Your task to perform on an android device: change the clock display to analog Image 0: 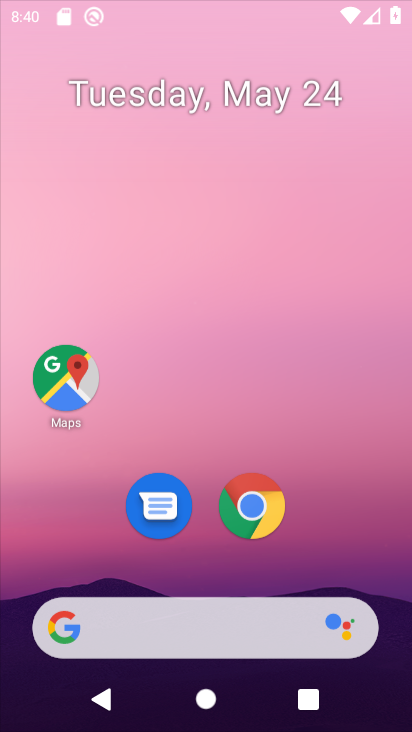
Step 0: drag from (308, 115) to (266, 32)
Your task to perform on an android device: change the clock display to analog Image 1: 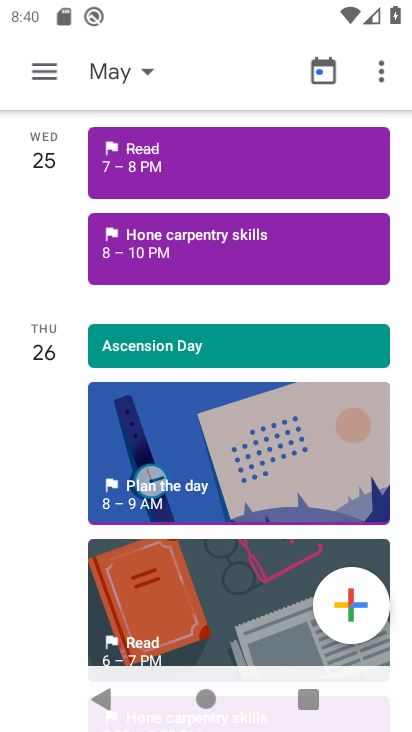
Step 1: click (115, 66)
Your task to perform on an android device: change the clock display to analog Image 2: 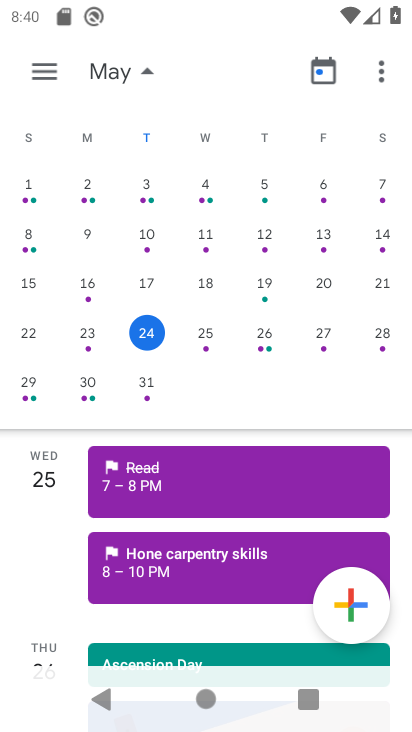
Step 2: press home button
Your task to perform on an android device: change the clock display to analog Image 3: 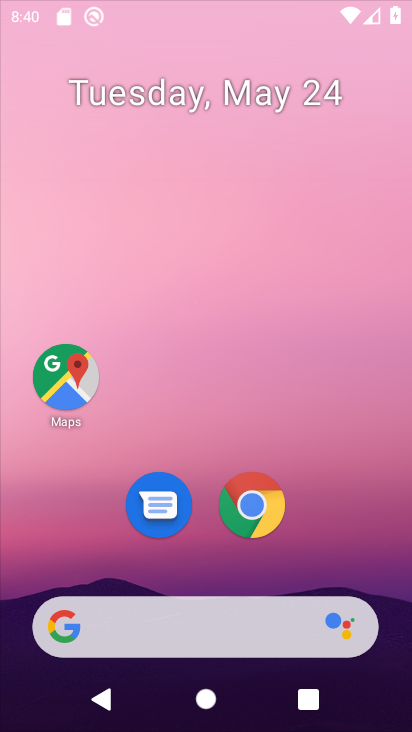
Step 3: drag from (184, 582) to (125, 0)
Your task to perform on an android device: change the clock display to analog Image 4: 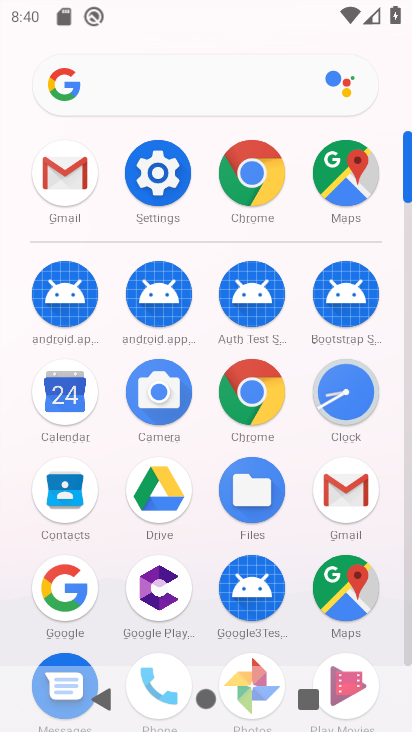
Step 4: click (347, 390)
Your task to perform on an android device: change the clock display to analog Image 5: 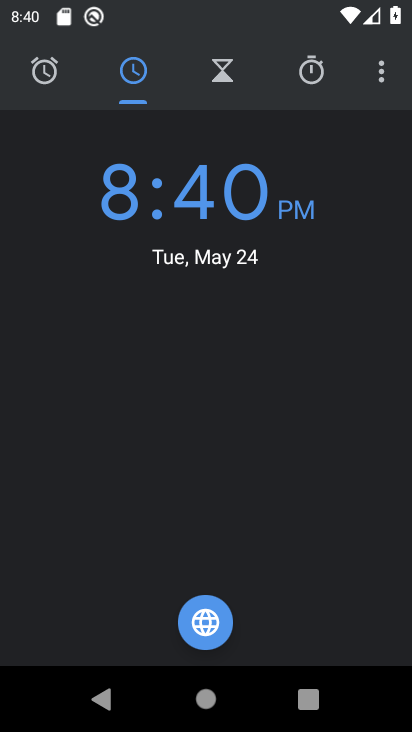
Step 5: click (380, 72)
Your task to perform on an android device: change the clock display to analog Image 6: 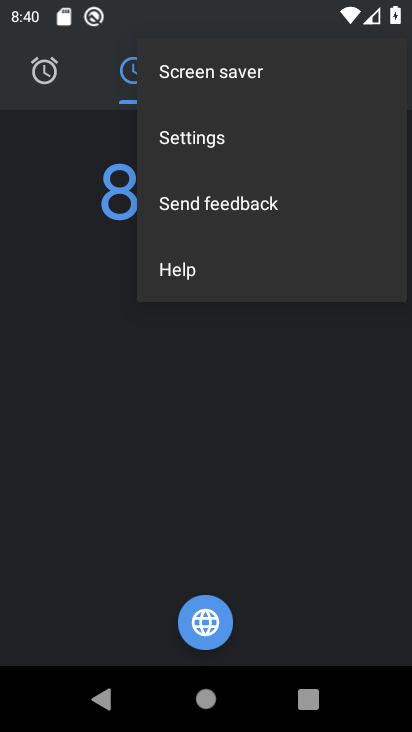
Step 6: click (205, 131)
Your task to perform on an android device: change the clock display to analog Image 7: 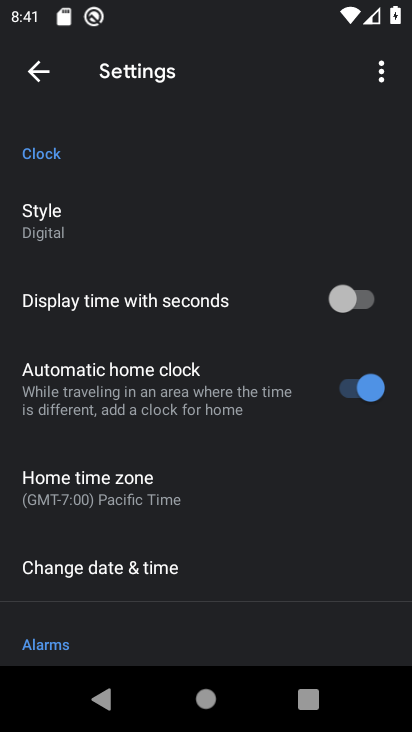
Step 7: click (34, 218)
Your task to perform on an android device: change the clock display to analog Image 8: 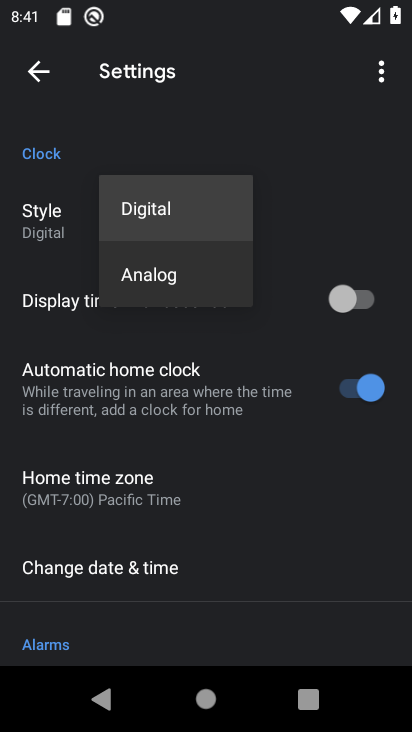
Step 8: click (171, 261)
Your task to perform on an android device: change the clock display to analog Image 9: 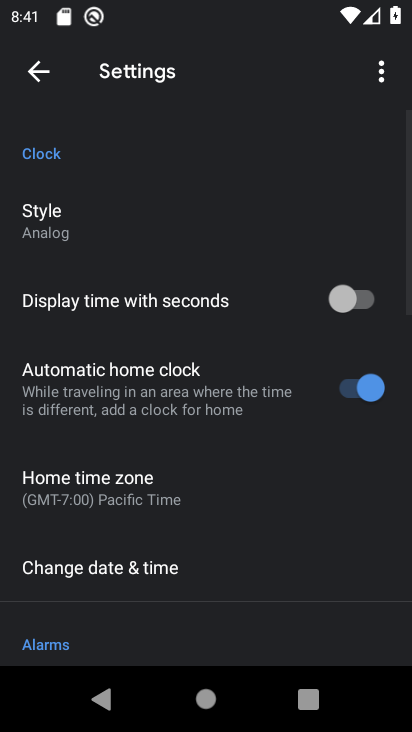
Step 9: task complete